Your task to perform on an android device: Go to internet settings Image 0: 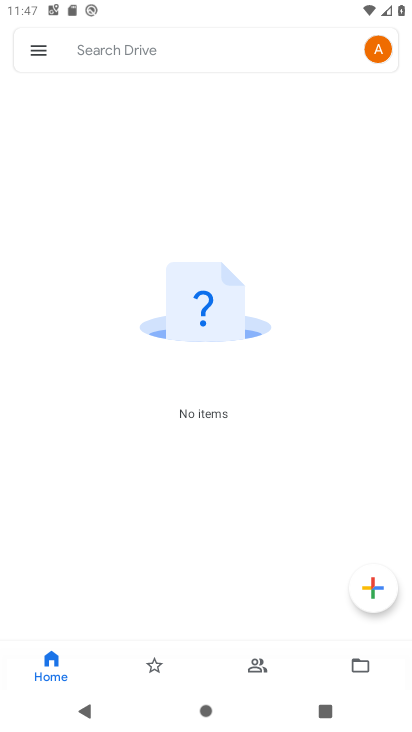
Step 0: press home button
Your task to perform on an android device: Go to internet settings Image 1: 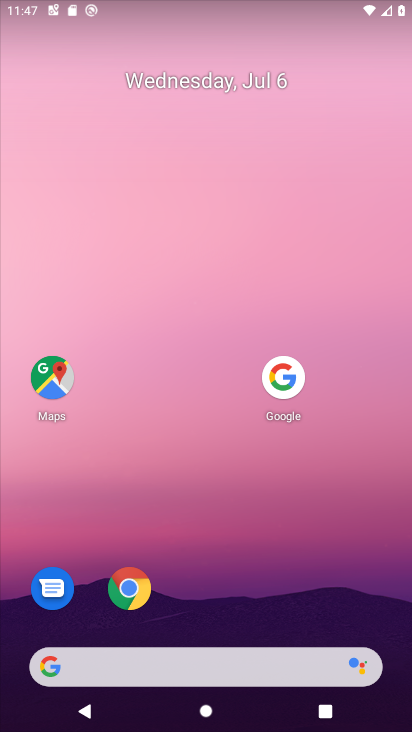
Step 1: drag from (148, 670) to (338, 29)
Your task to perform on an android device: Go to internet settings Image 2: 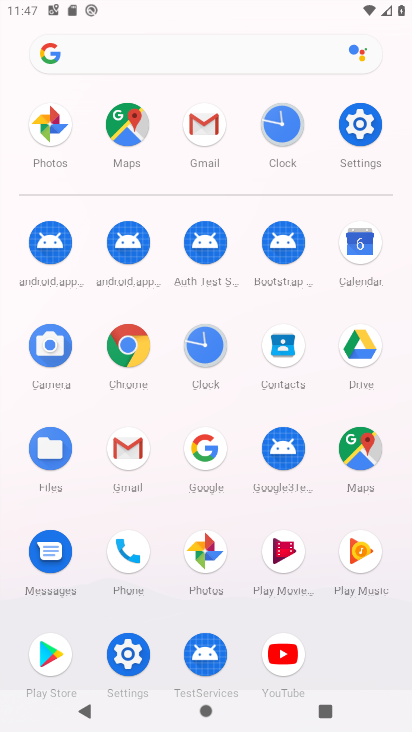
Step 2: click (359, 130)
Your task to perform on an android device: Go to internet settings Image 3: 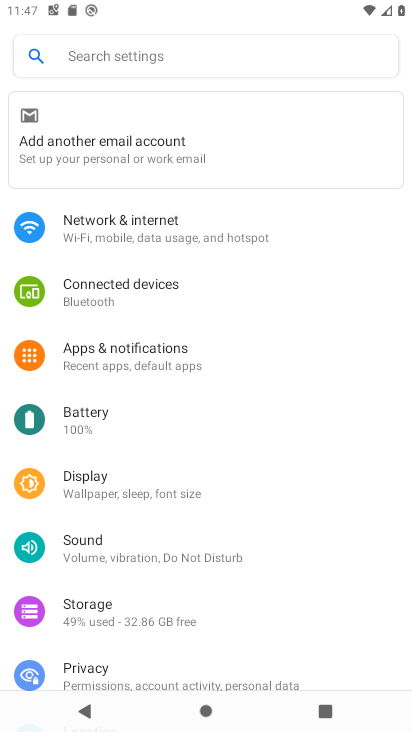
Step 3: click (122, 226)
Your task to perform on an android device: Go to internet settings Image 4: 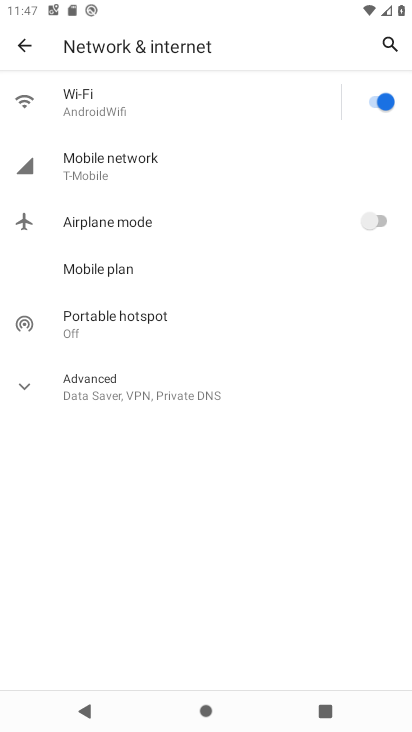
Step 4: click (192, 96)
Your task to perform on an android device: Go to internet settings Image 5: 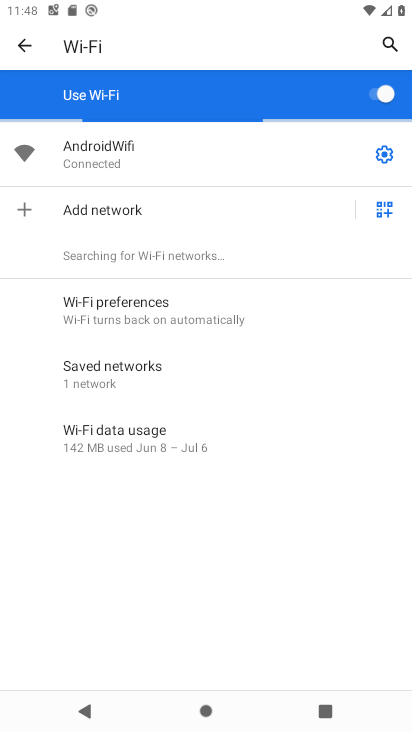
Step 5: task complete